Your task to perform on an android device: Toggle the flashlight Image 0: 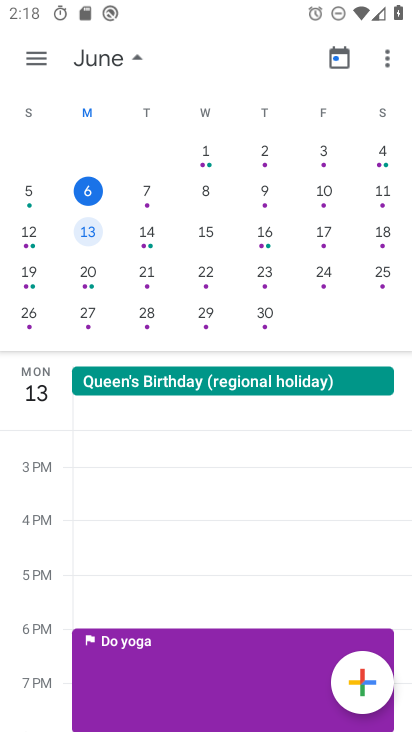
Step 0: press home button
Your task to perform on an android device: Toggle the flashlight Image 1: 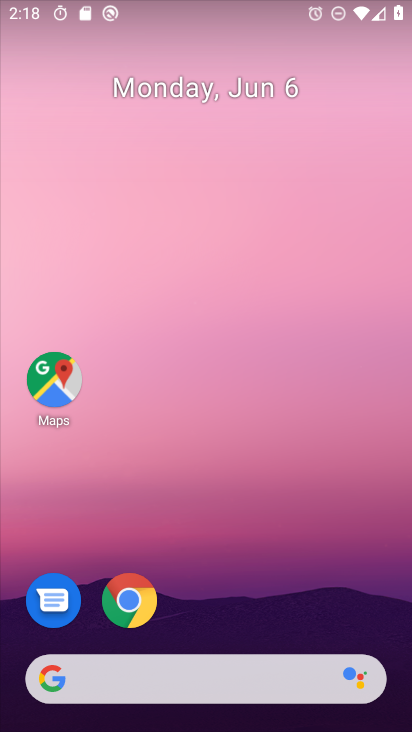
Step 1: drag from (242, 499) to (235, 223)
Your task to perform on an android device: Toggle the flashlight Image 2: 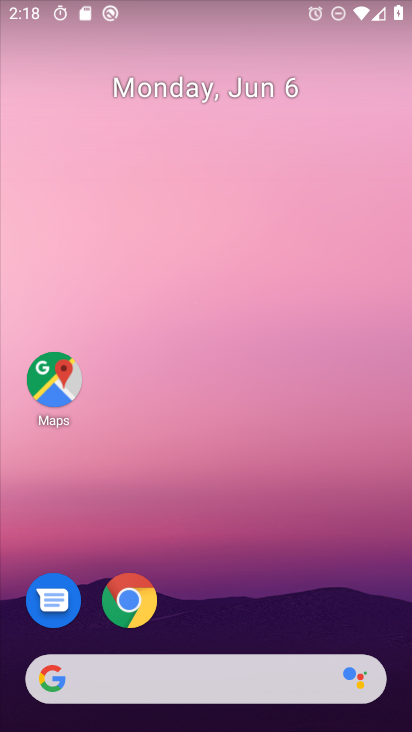
Step 2: drag from (205, 321) to (205, 261)
Your task to perform on an android device: Toggle the flashlight Image 3: 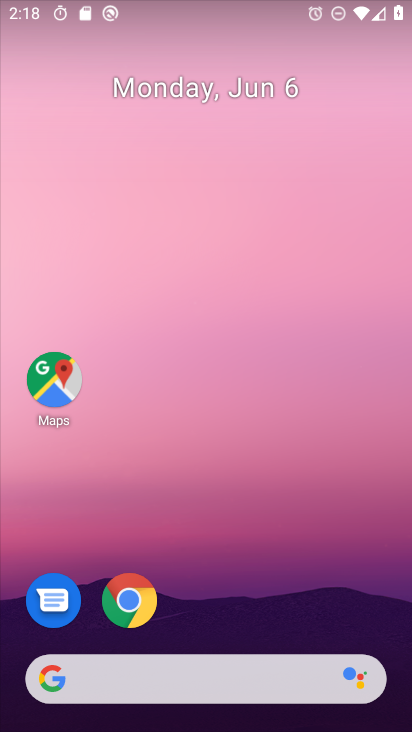
Step 3: drag from (217, 622) to (217, 189)
Your task to perform on an android device: Toggle the flashlight Image 4: 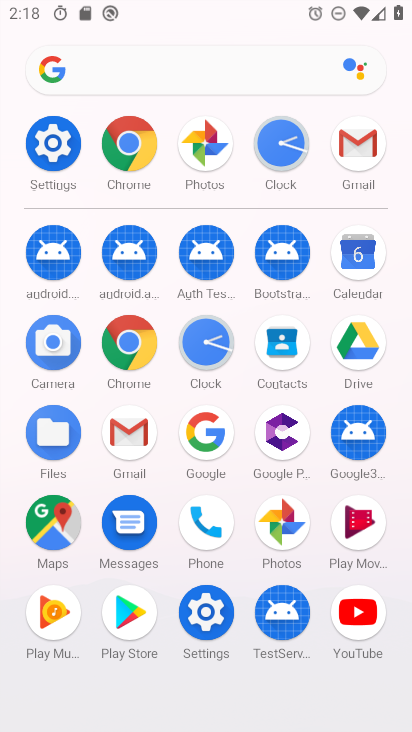
Step 4: click (58, 142)
Your task to perform on an android device: Toggle the flashlight Image 5: 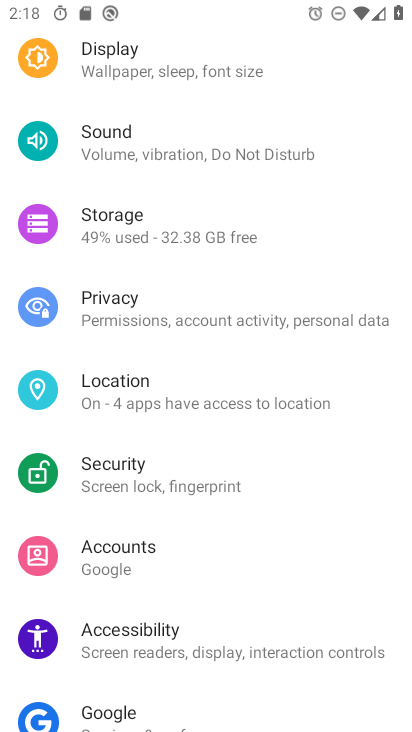
Step 5: task complete